Your task to perform on an android device: Search for flights from Sydney to Buenos aires Image 0: 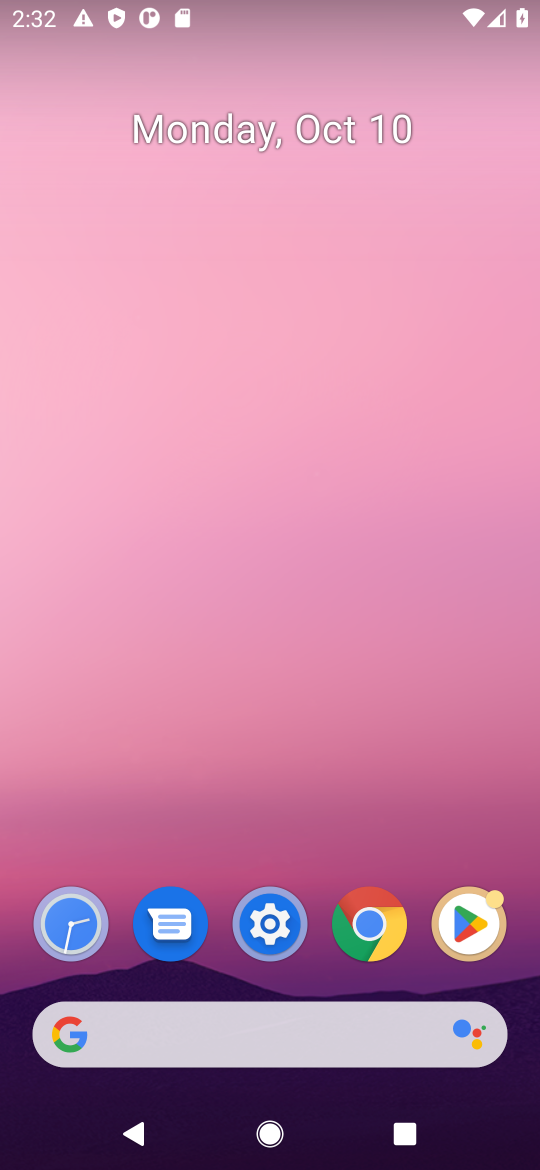
Step 0: click (365, 915)
Your task to perform on an android device: Search for flights from Sydney to Buenos aires Image 1: 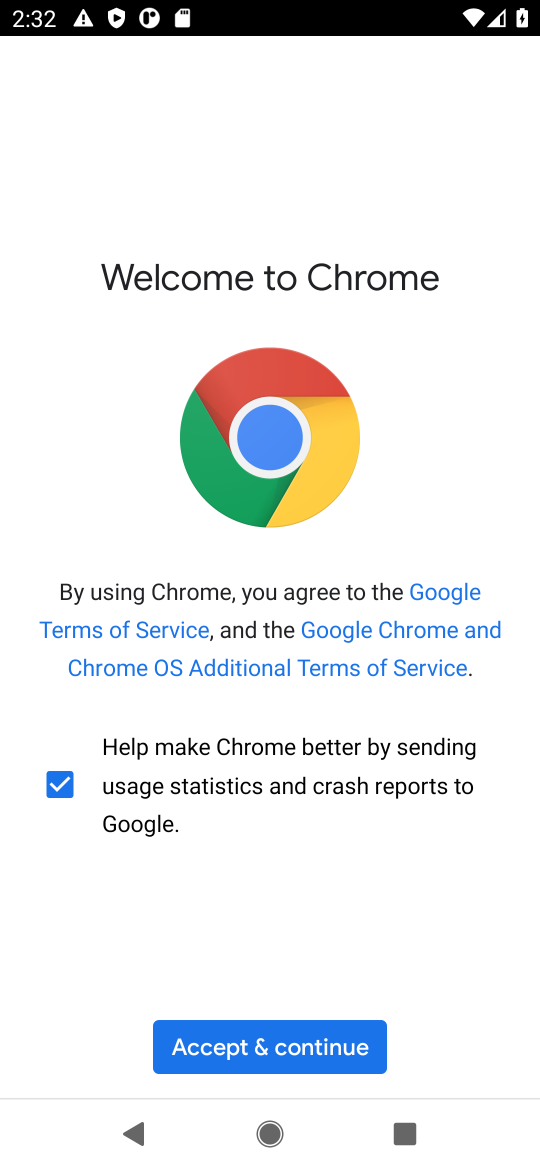
Step 1: click (238, 1035)
Your task to perform on an android device: Search for flights from Sydney to Buenos aires Image 2: 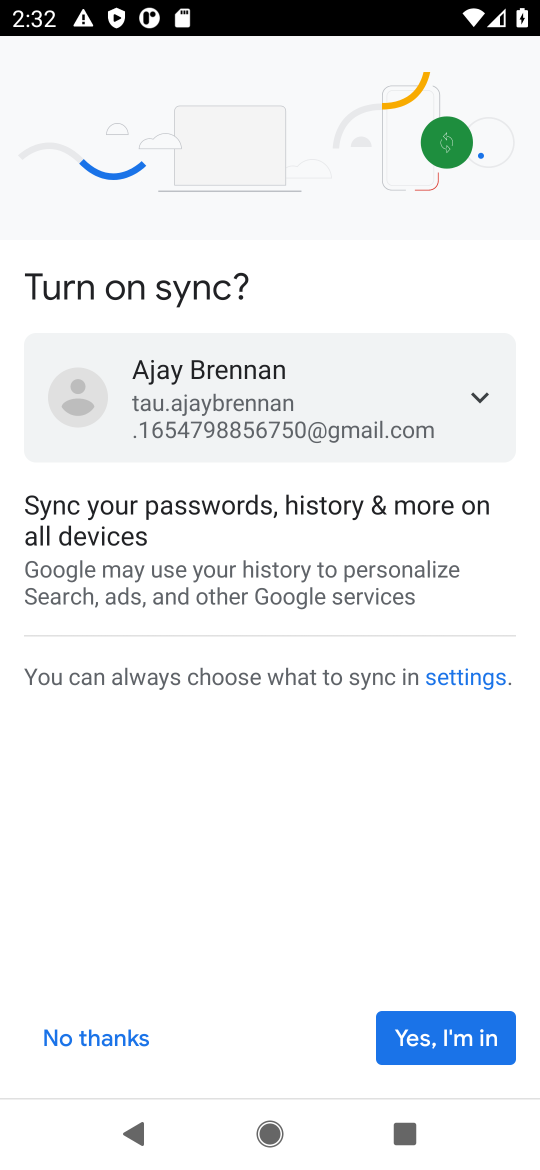
Step 2: click (441, 1054)
Your task to perform on an android device: Search for flights from Sydney to Buenos aires Image 3: 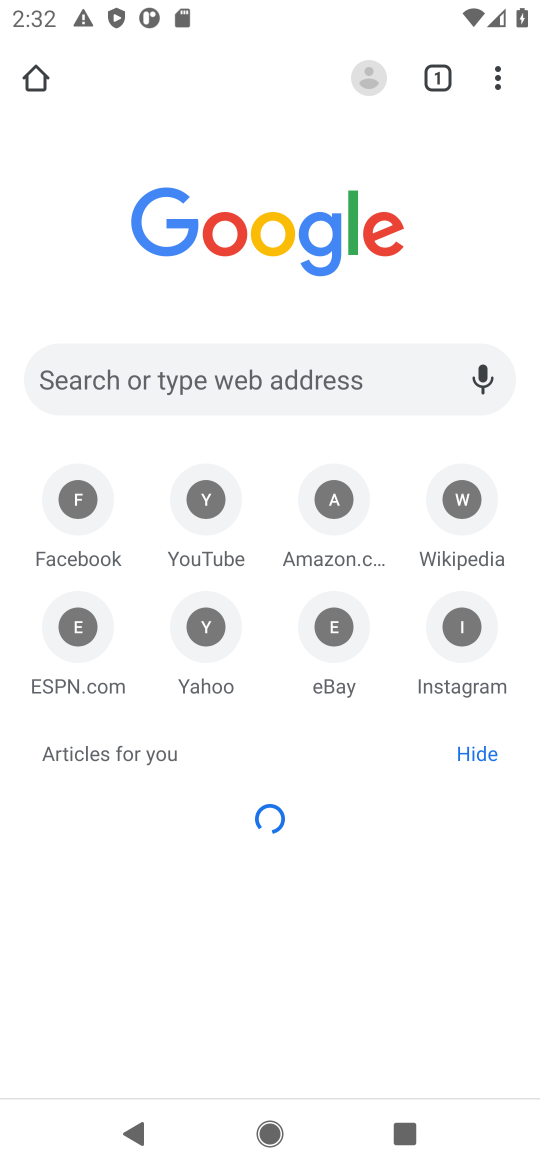
Step 3: click (282, 368)
Your task to perform on an android device: Search for flights from Sydney to Buenos aires Image 4: 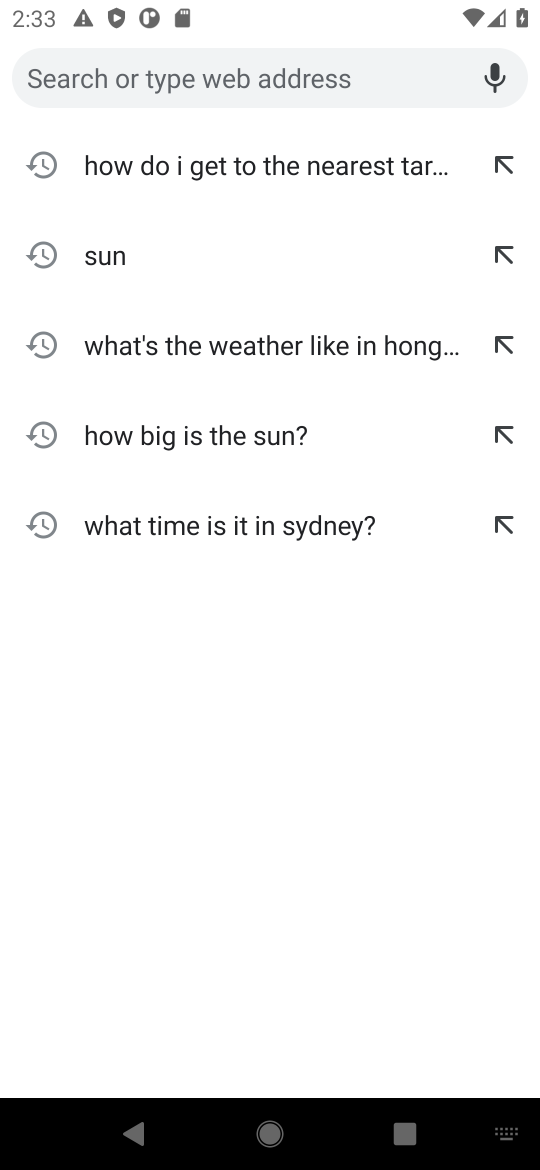
Step 4: type "flights from sydney to beunos aires"
Your task to perform on an android device: Search for flights from Sydney to Buenos aires Image 5: 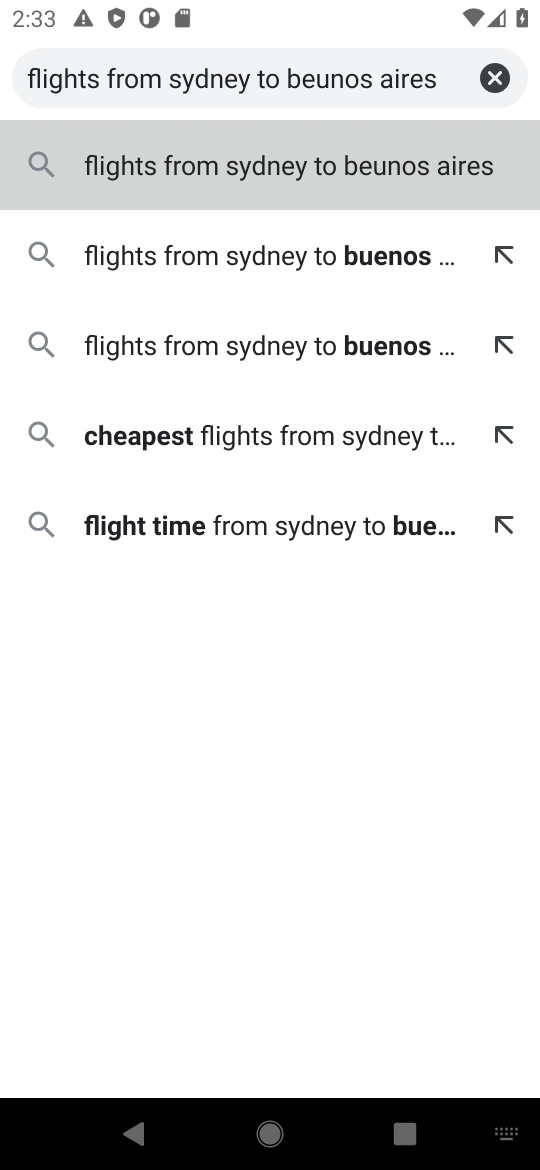
Step 5: press enter
Your task to perform on an android device: Search for flights from Sydney to Buenos aires Image 6: 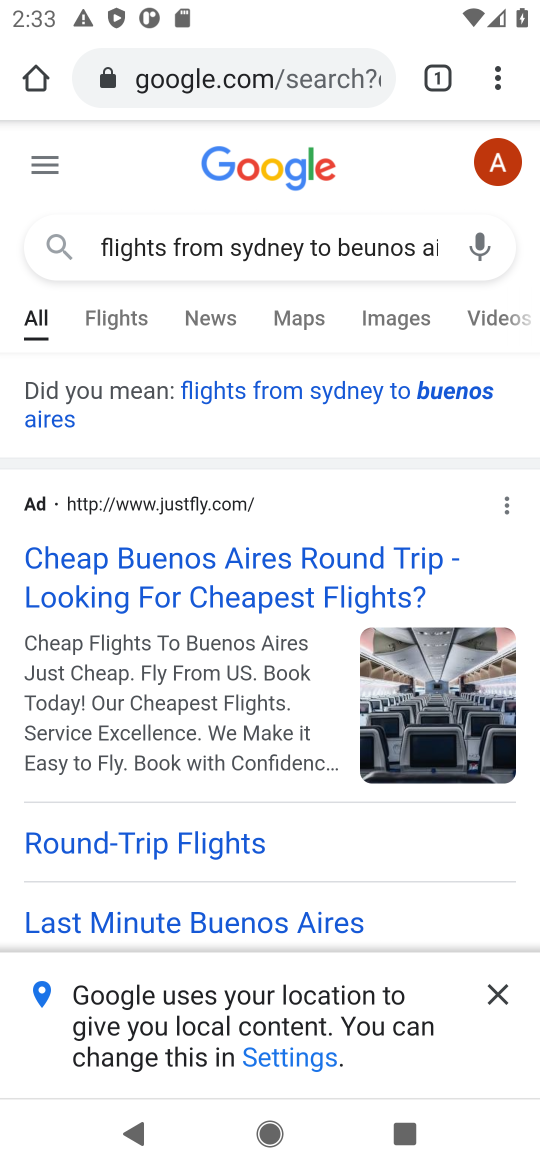
Step 6: drag from (214, 807) to (235, 266)
Your task to perform on an android device: Search for flights from Sydney to Buenos aires Image 7: 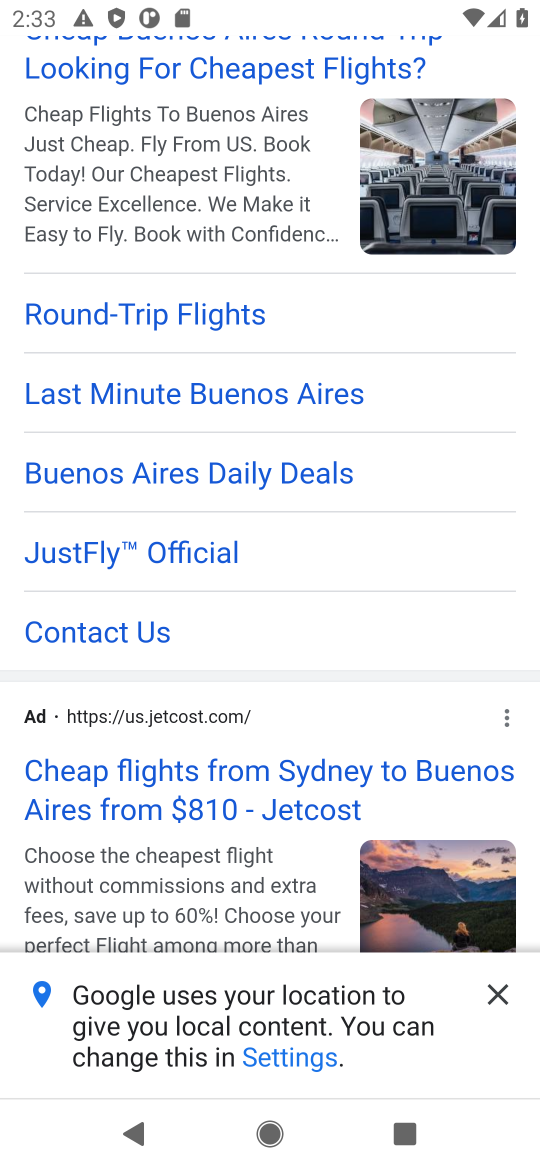
Step 7: drag from (232, 818) to (237, 276)
Your task to perform on an android device: Search for flights from Sydney to Buenos aires Image 8: 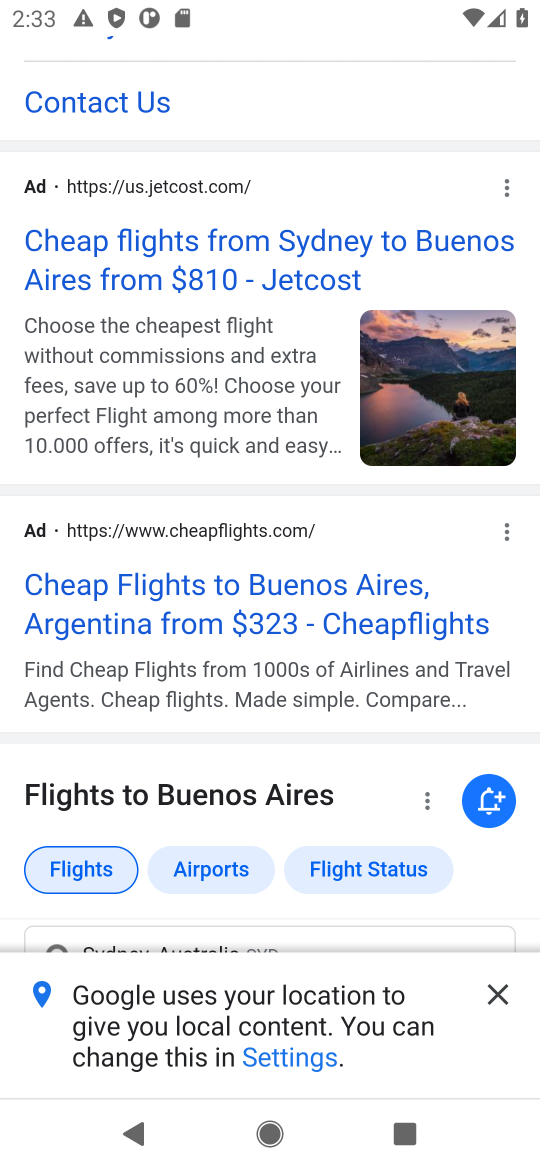
Step 8: drag from (270, 751) to (255, 169)
Your task to perform on an android device: Search for flights from Sydney to Buenos aires Image 9: 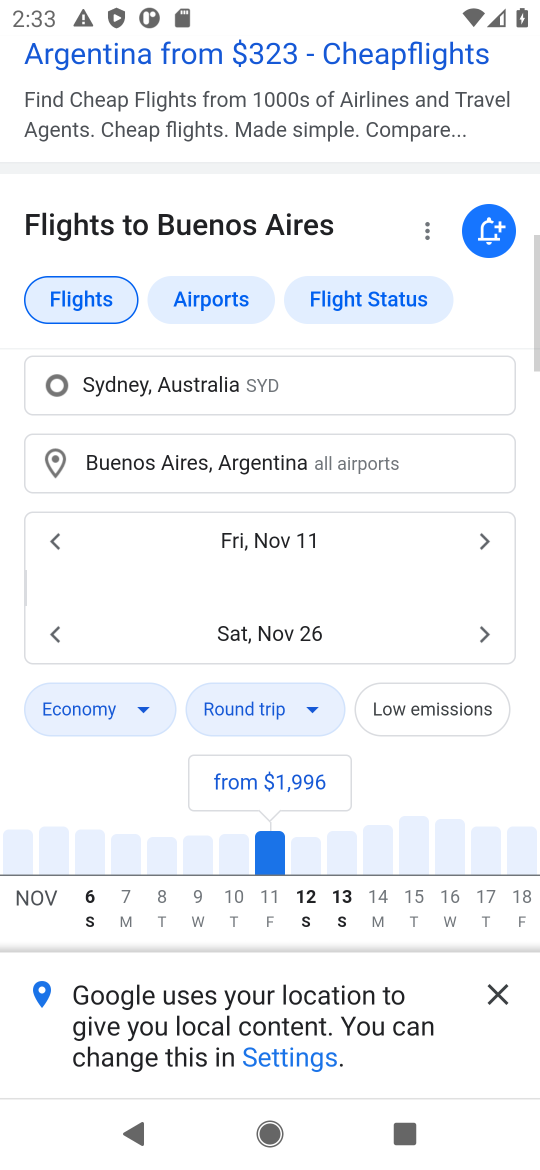
Step 9: drag from (252, 711) to (253, 218)
Your task to perform on an android device: Search for flights from Sydney to Buenos aires Image 10: 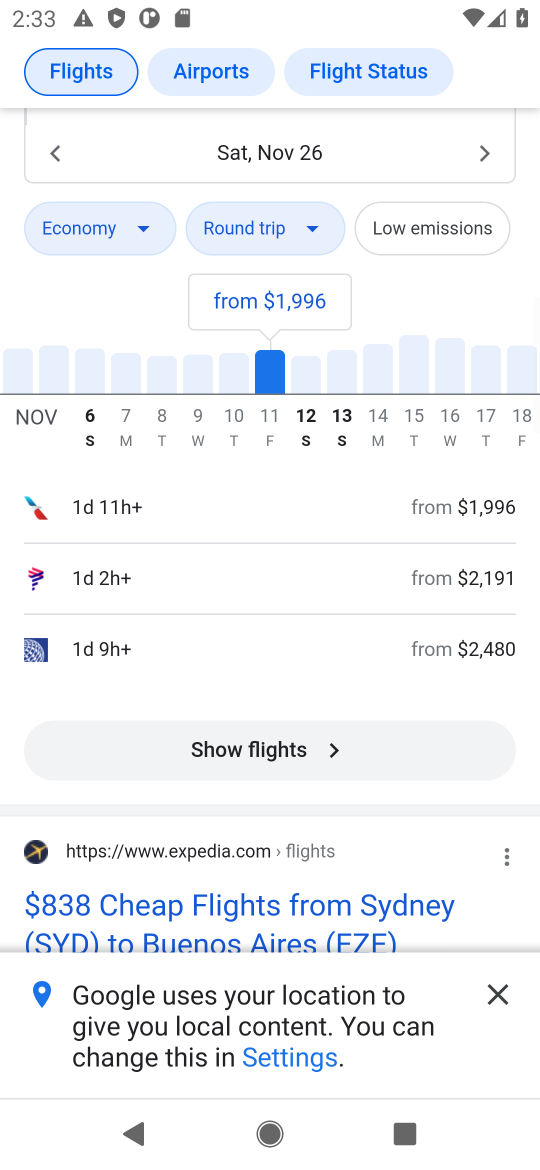
Step 10: drag from (282, 824) to (263, 534)
Your task to perform on an android device: Search for flights from Sydney to Buenos aires Image 11: 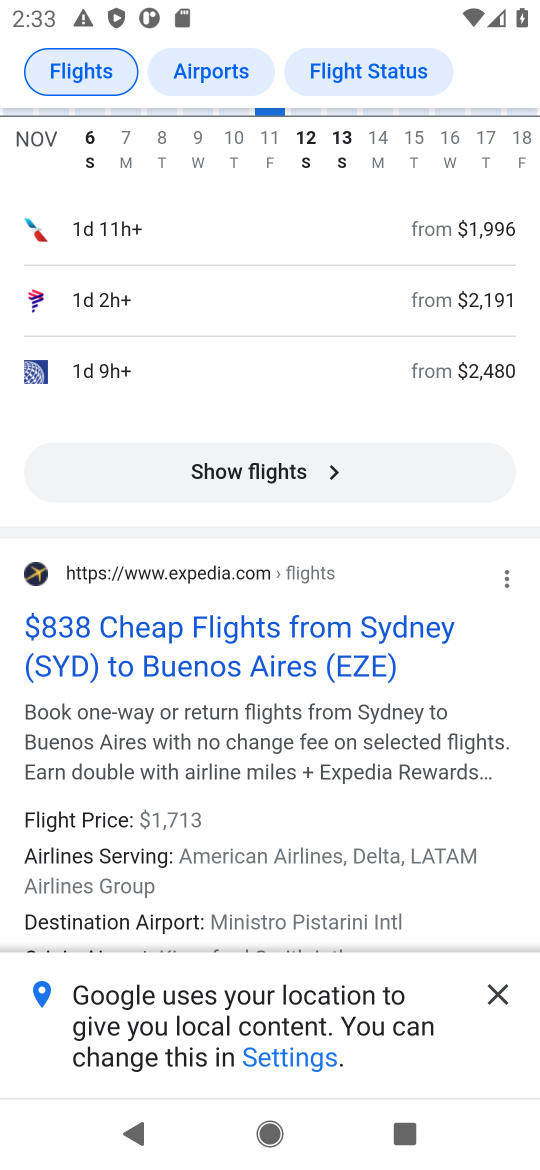
Step 11: click (269, 472)
Your task to perform on an android device: Search for flights from Sydney to Buenos aires Image 12: 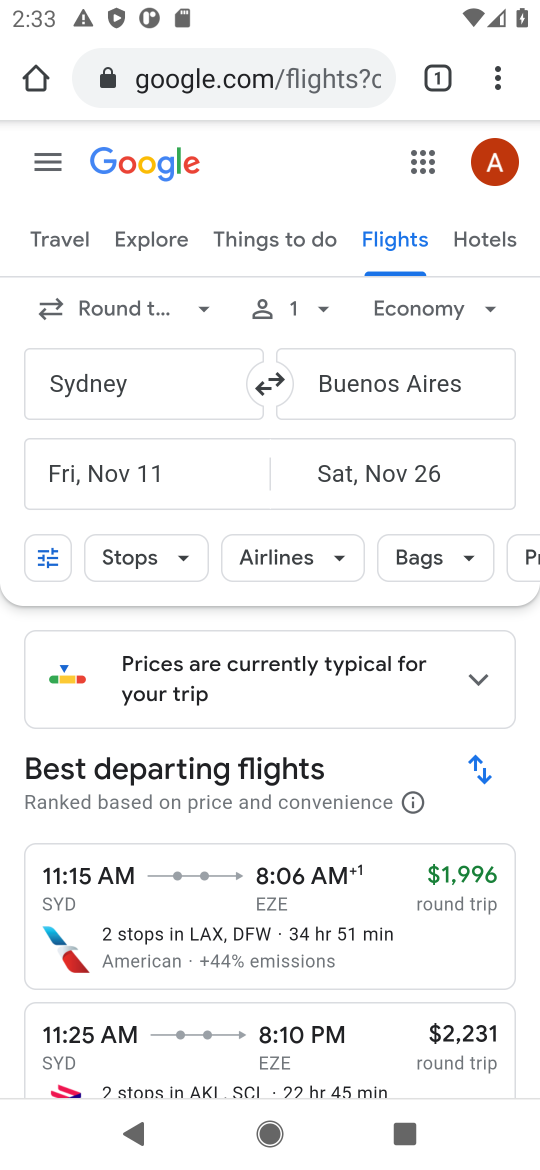
Step 12: task complete